Your task to perform on an android device: add a label to a message in the gmail app Image 0: 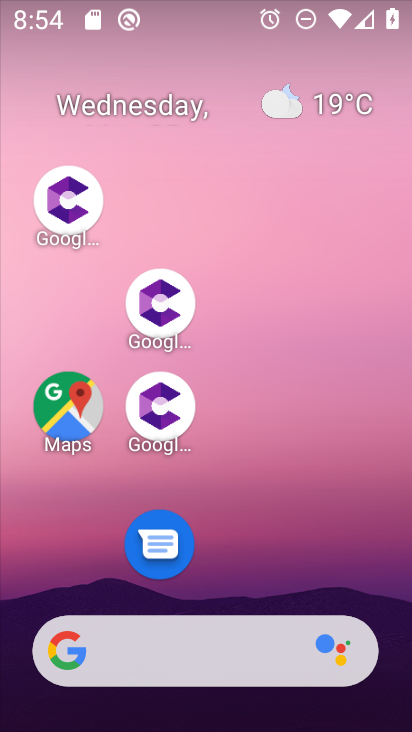
Step 0: drag from (319, 519) to (261, 68)
Your task to perform on an android device: add a label to a message in the gmail app Image 1: 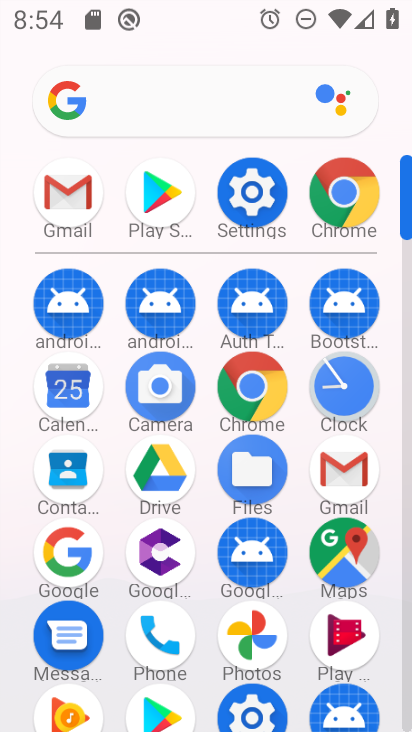
Step 1: click (57, 198)
Your task to perform on an android device: add a label to a message in the gmail app Image 2: 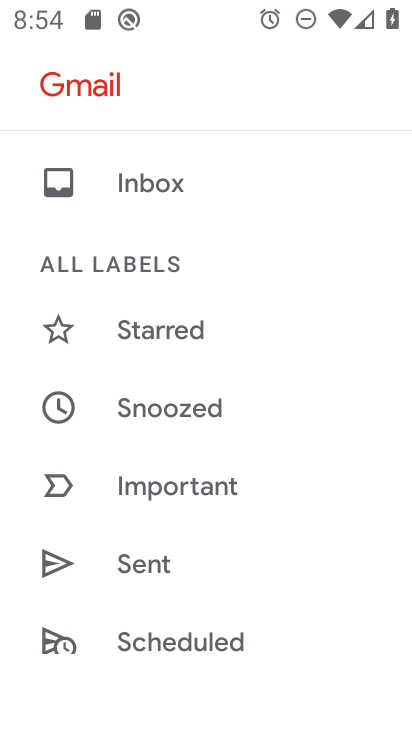
Step 2: drag from (253, 318) to (218, 666)
Your task to perform on an android device: add a label to a message in the gmail app Image 3: 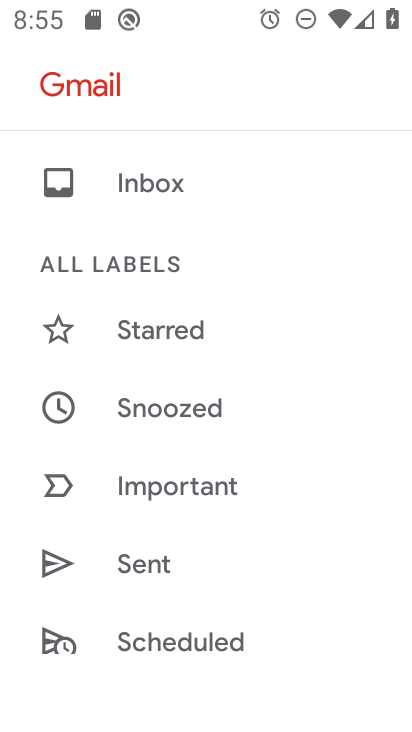
Step 3: drag from (237, 508) to (198, 111)
Your task to perform on an android device: add a label to a message in the gmail app Image 4: 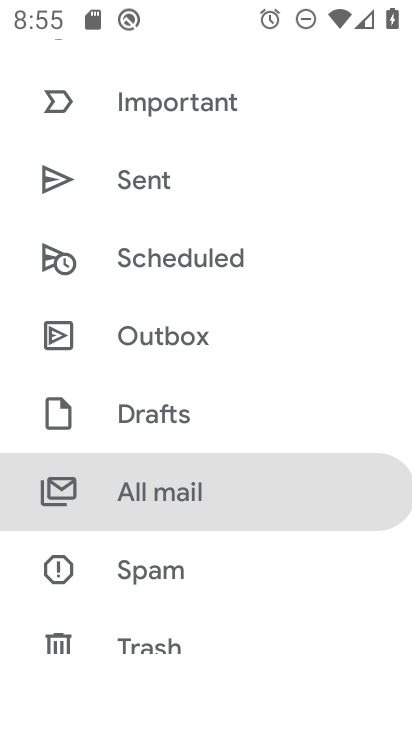
Step 4: click (195, 485)
Your task to perform on an android device: add a label to a message in the gmail app Image 5: 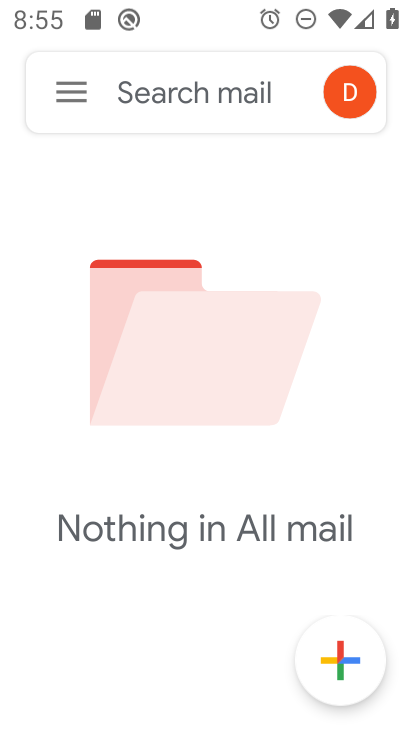
Step 5: task complete